Your task to perform on an android device: turn off sleep mode Image 0: 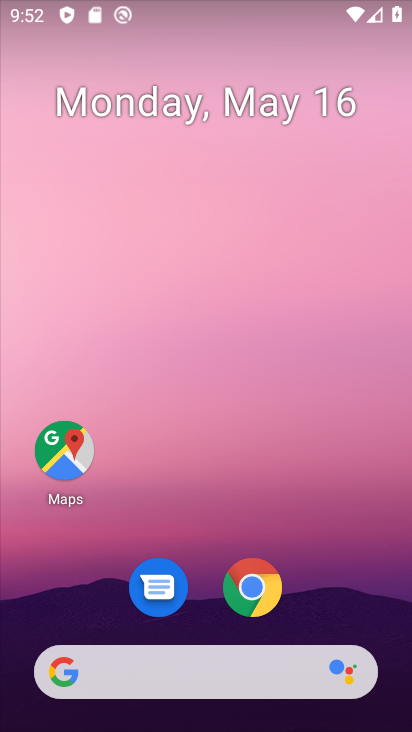
Step 0: drag from (194, 641) to (119, 40)
Your task to perform on an android device: turn off sleep mode Image 1: 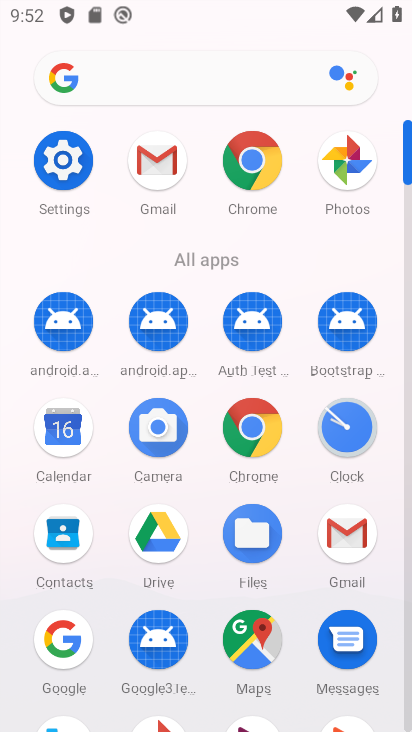
Step 1: click (61, 172)
Your task to perform on an android device: turn off sleep mode Image 2: 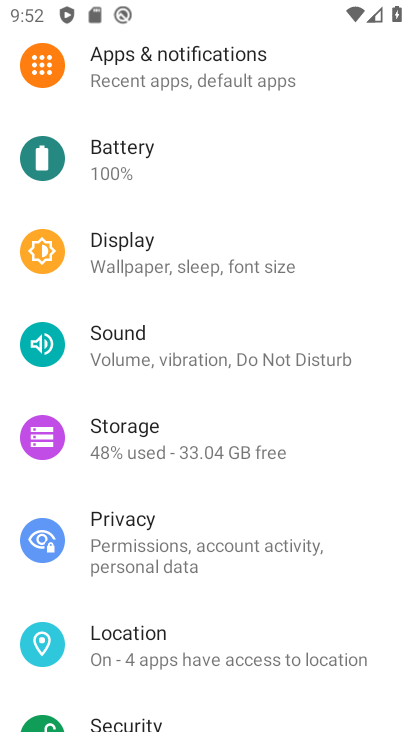
Step 2: click (121, 234)
Your task to perform on an android device: turn off sleep mode Image 3: 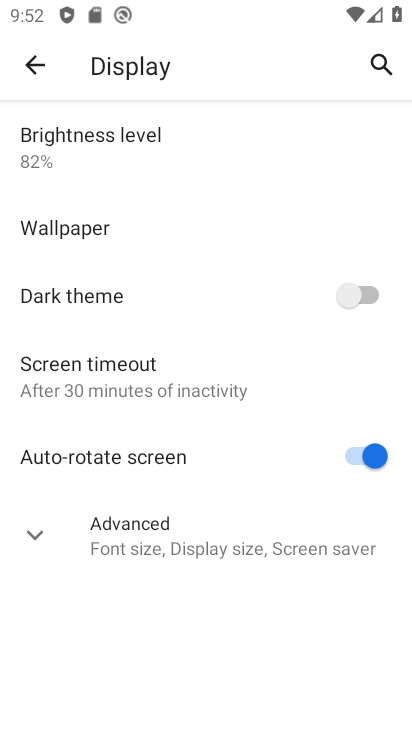
Step 3: task complete